Your task to perform on an android device: find which apps use the phone's location Image 0: 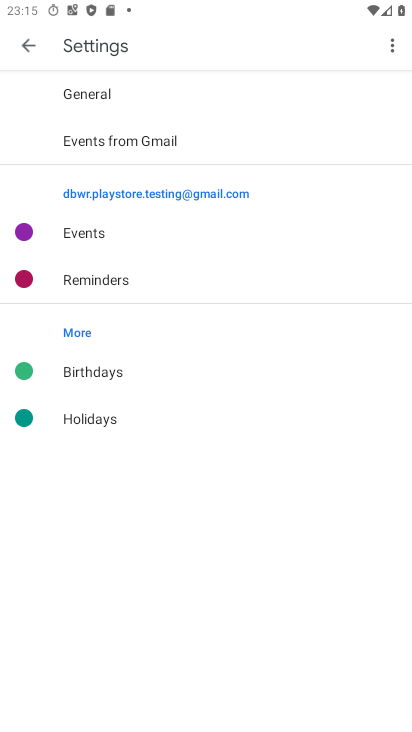
Step 0: press home button
Your task to perform on an android device: find which apps use the phone's location Image 1: 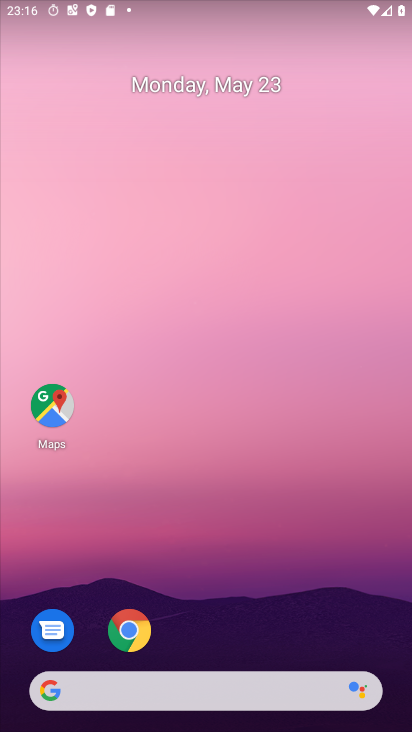
Step 1: drag from (264, 651) to (283, 7)
Your task to perform on an android device: find which apps use the phone's location Image 2: 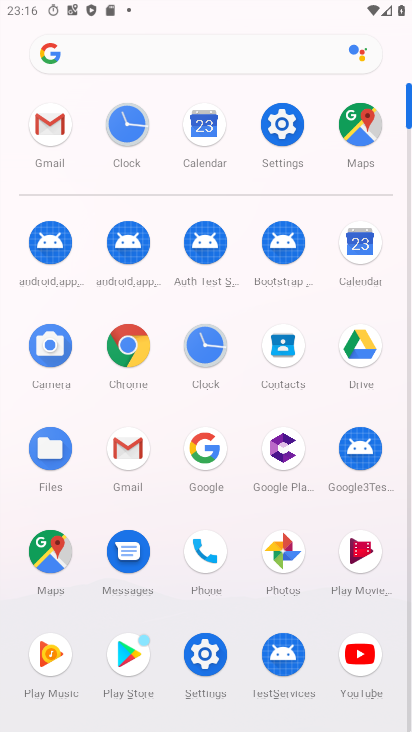
Step 2: click (276, 122)
Your task to perform on an android device: find which apps use the phone's location Image 3: 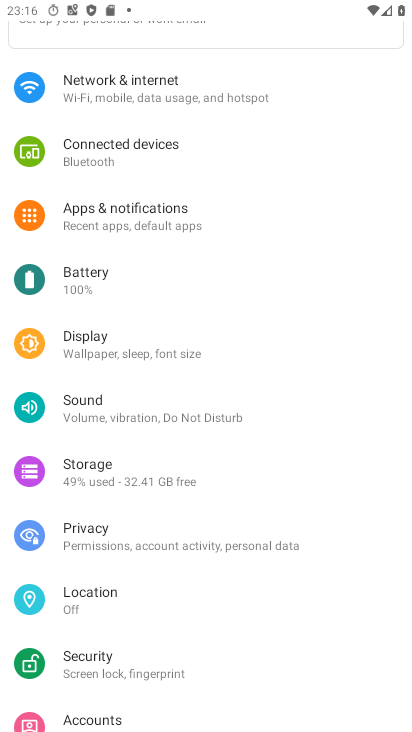
Step 3: click (43, 602)
Your task to perform on an android device: find which apps use the phone's location Image 4: 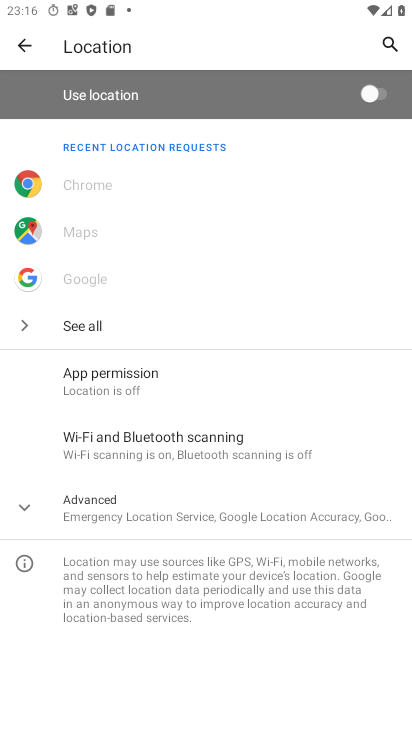
Step 4: click (97, 383)
Your task to perform on an android device: find which apps use the phone's location Image 5: 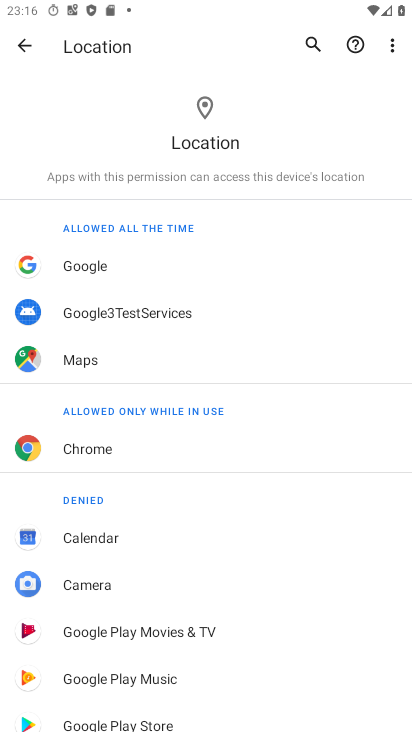
Step 5: task complete